Your task to perform on an android device: change the clock display to show seconds Image 0: 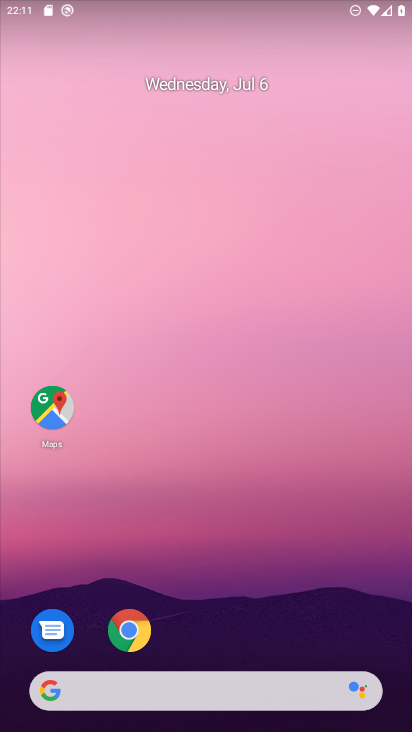
Step 0: drag from (236, 676) to (218, 73)
Your task to perform on an android device: change the clock display to show seconds Image 1: 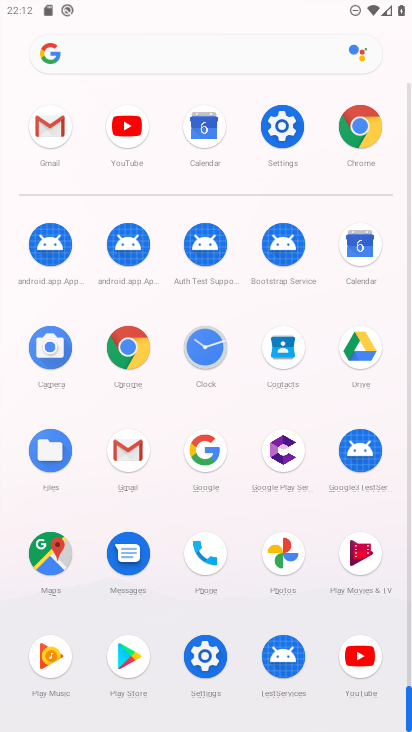
Step 1: click (217, 365)
Your task to perform on an android device: change the clock display to show seconds Image 2: 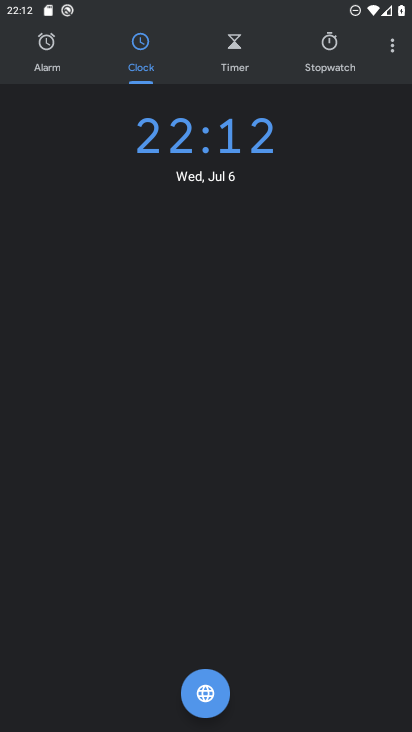
Step 2: click (387, 34)
Your task to perform on an android device: change the clock display to show seconds Image 3: 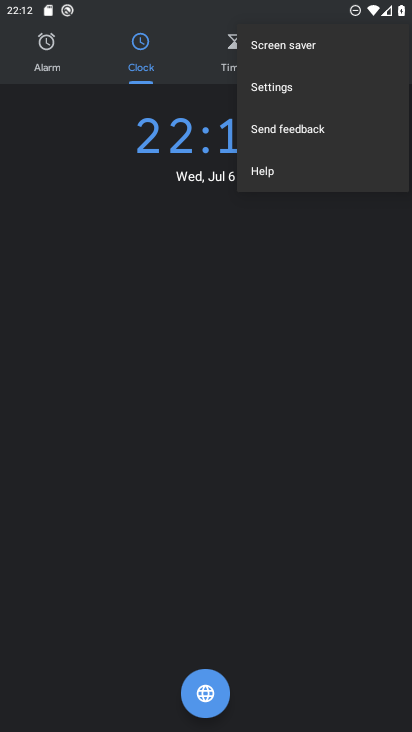
Step 3: click (288, 81)
Your task to perform on an android device: change the clock display to show seconds Image 4: 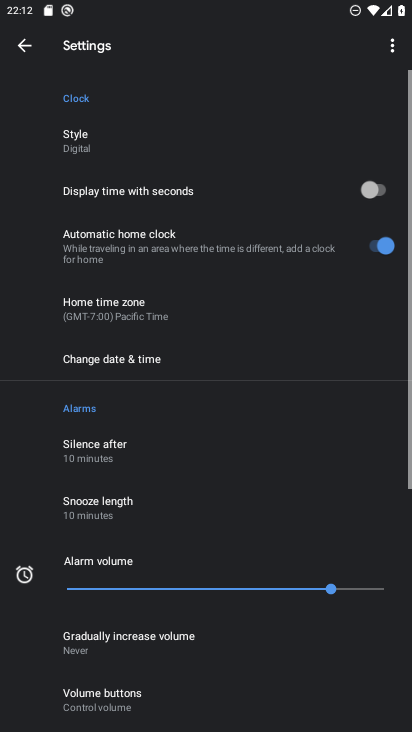
Step 4: click (247, 206)
Your task to perform on an android device: change the clock display to show seconds Image 5: 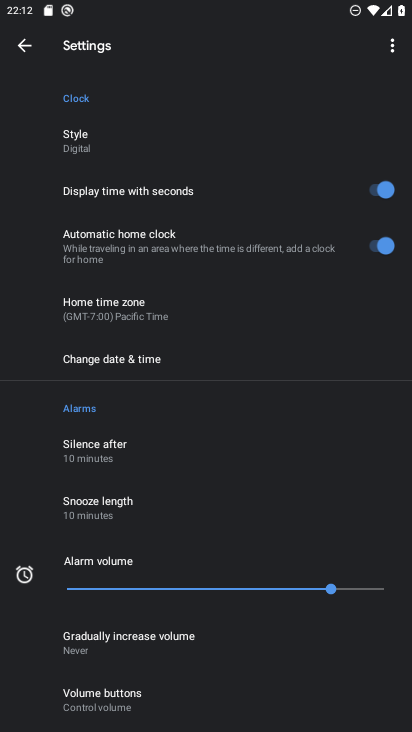
Step 5: task complete